Your task to perform on an android device: snooze an email in the gmail app Image 0: 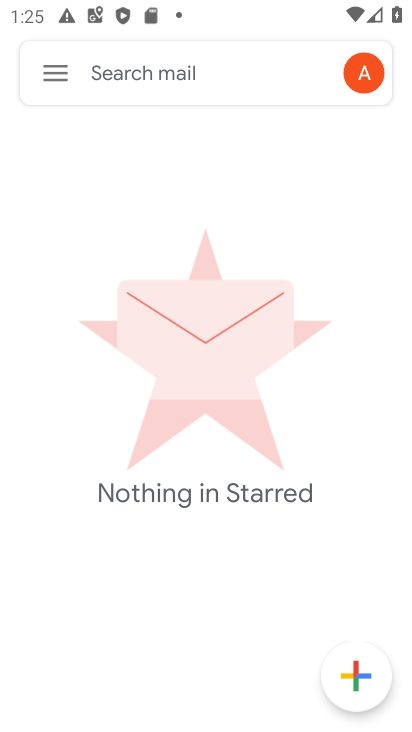
Step 0: press home button
Your task to perform on an android device: snooze an email in the gmail app Image 1: 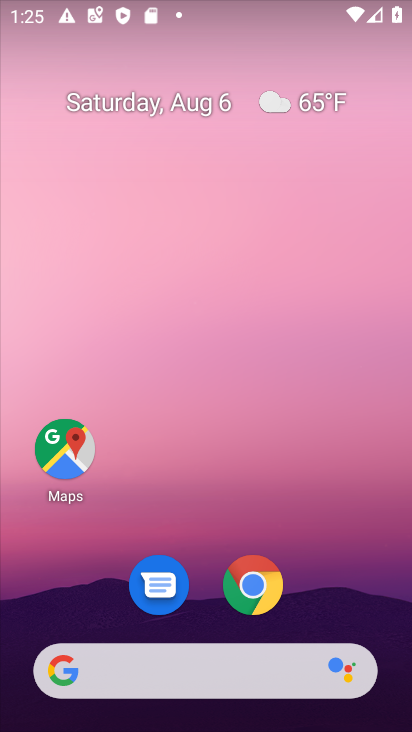
Step 1: drag from (204, 518) to (271, 0)
Your task to perform on an android device: snooze an email in the gmail app Image 2: 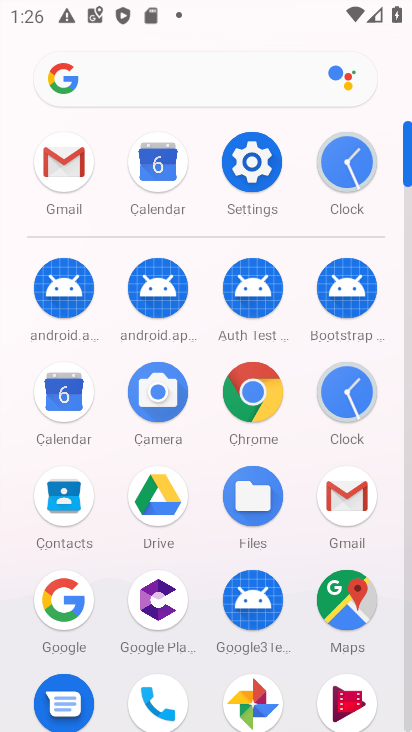
Step 2: click (354, 491)
Your task to perform on an android device: snooze an email in the gmail app Image 3: 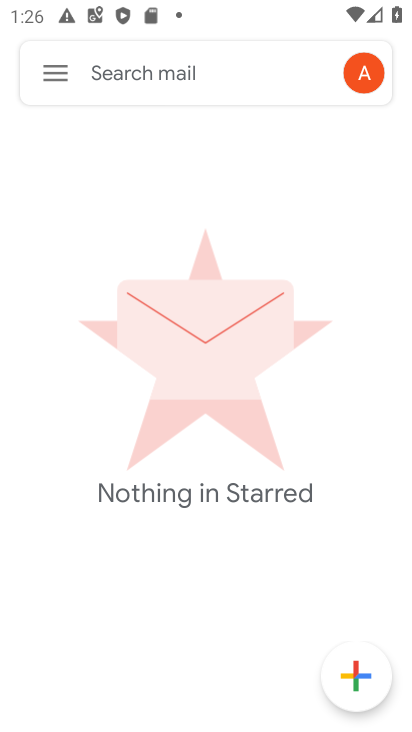
Step 3: click (55, 66)
Your task to perform on an android device: snooze an email in the gmail app Image 4: 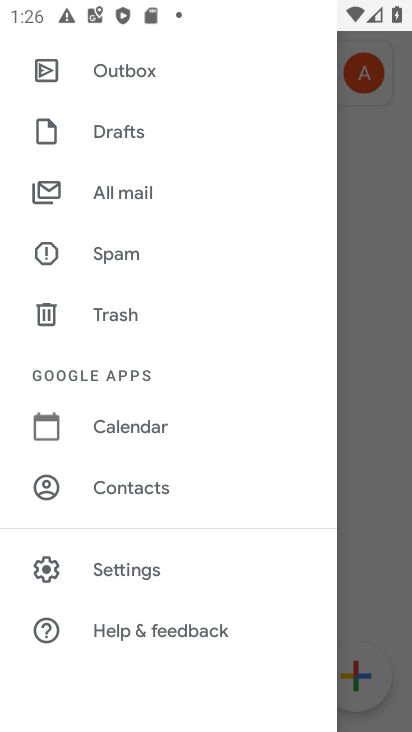
Step 4: drag from (181, 140) to (212, 597)
Your task to perform on an android device: snooze an email in the gmail app Image 5: 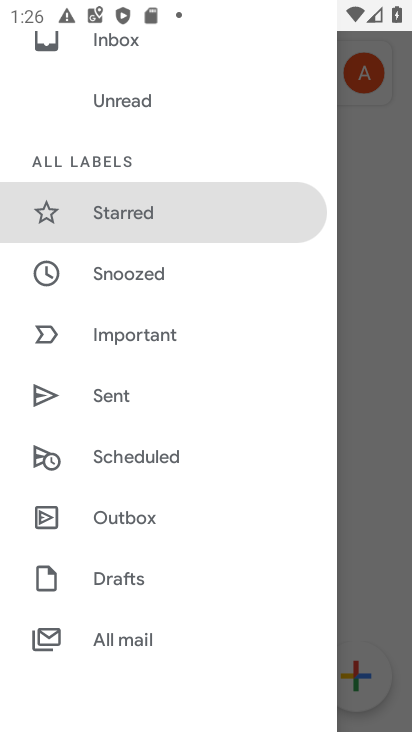
Step 5: click (165, 269)
Your task to perform on an android device: snooze an email in the gmail app Image 6: 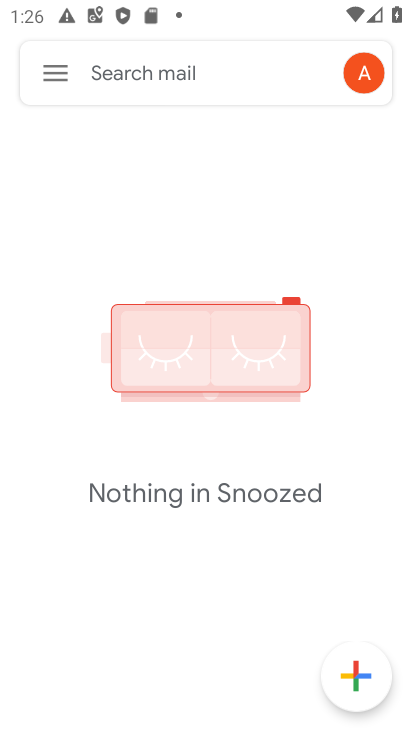
Step 6: task complete